Your task to perform on an android device: set the stopwatch Image 0: 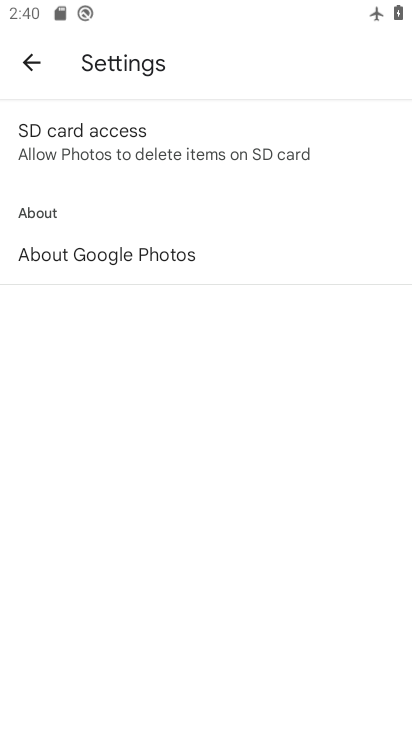
Step 0: drag from (296, 587) to (260, 403)
Your task to perform on an android device: set the stopwatch Image 1: 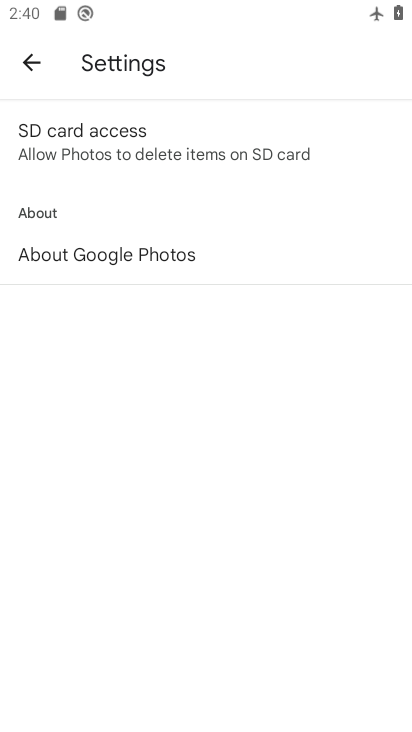
Step 1: press home button
Your task to perform on an android device: set the stopwatch Image 2: 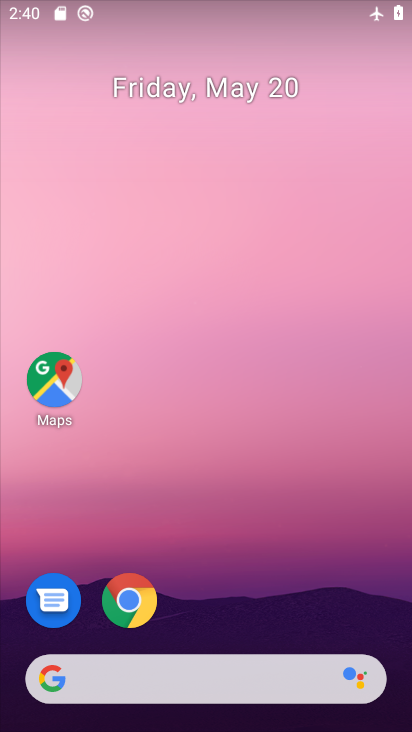
Step 2: drag from (267, 561) to (170, 68)
Your task to perform on an android device: set the stopwatch Image 3: 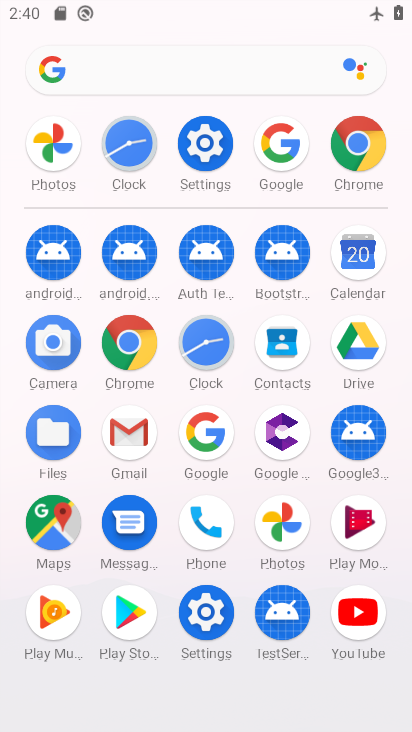
Step 3: click (207, 346)
Your task to perform on an android device: set the stopwatch Image 4: 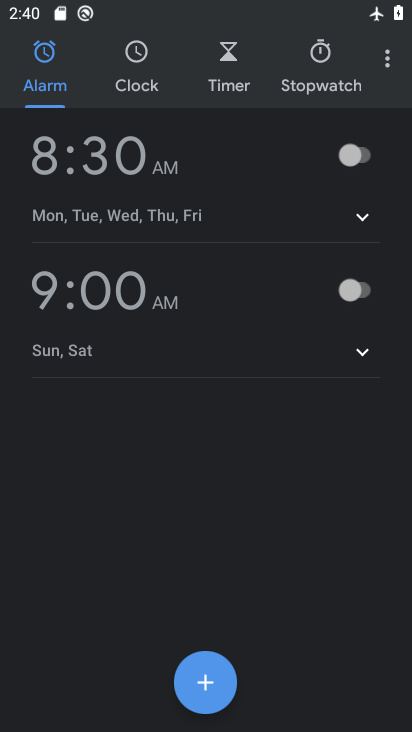
Step 4: click (311, 70)
Your task to perform on an android device: set the stopwatch Image 5: 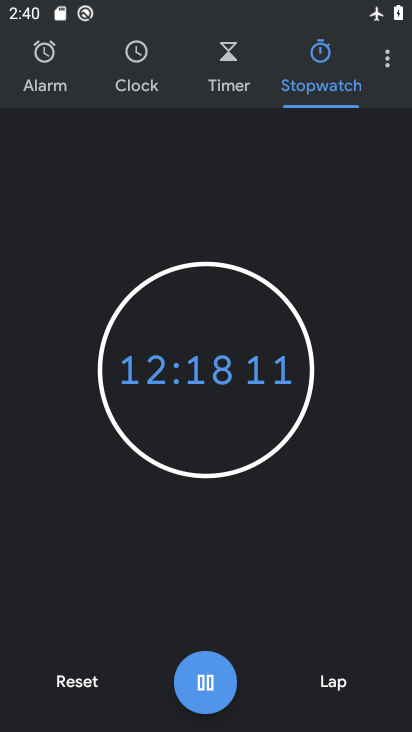
Step 5: task complete